Your task to perform on an android device: turn off priority inbox in the gmail app Image 0: 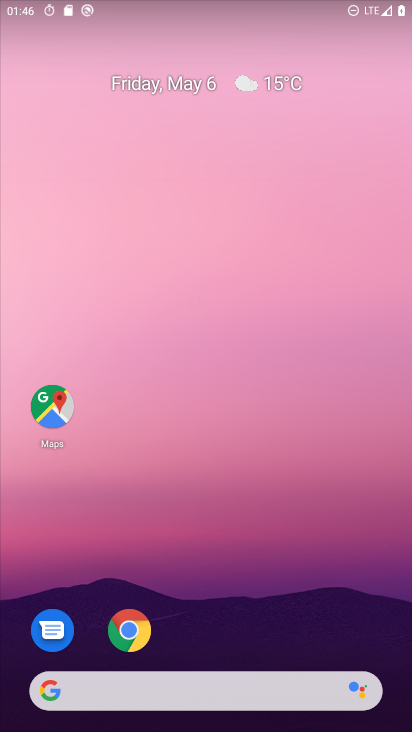
Step 0: drag from (274, 608) to (228, 20)
Your task to perform on an android device: turn off priority inbox in the gmail app Image 1: 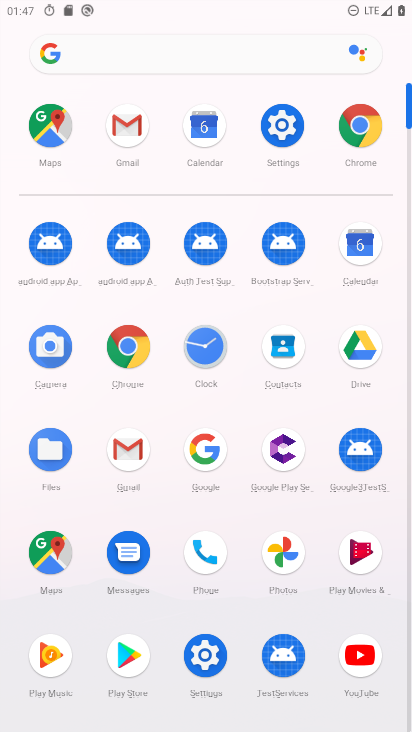
Step 1: click (133, 138)
Your task to perform on an android device: turn off priority inbox in the gmail app Image 2: 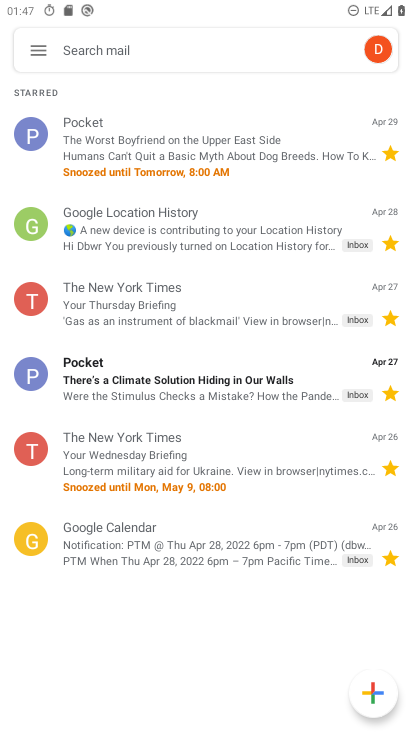
Step 2: click (44, 51)
Your task to perform on an android device: turn off priority inbox in the gmail app Image 3: 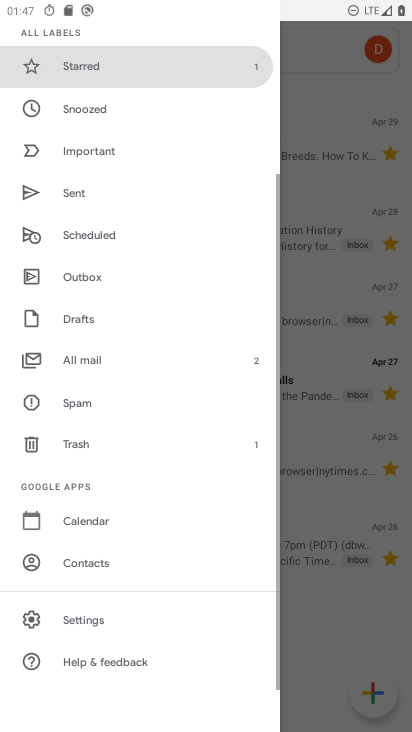
Step 3: click (153, 632)
Your task to perform on an android device: turn off priority inbox in the gmail app Image 4: 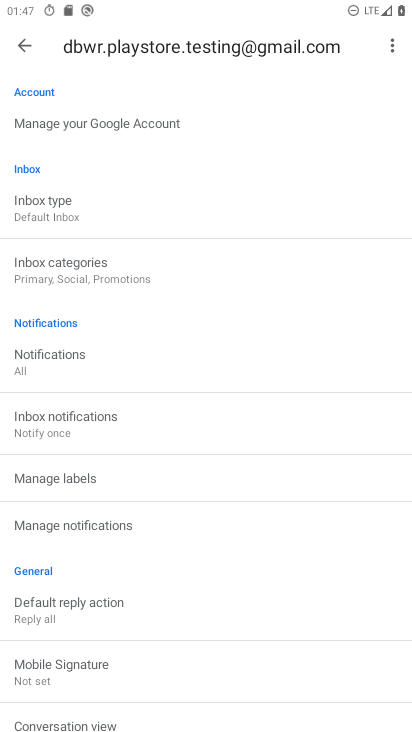
Step 4: click (66, 217)
Your task to perform on an android device: turn off priority inbox in the gmail app Image 5: 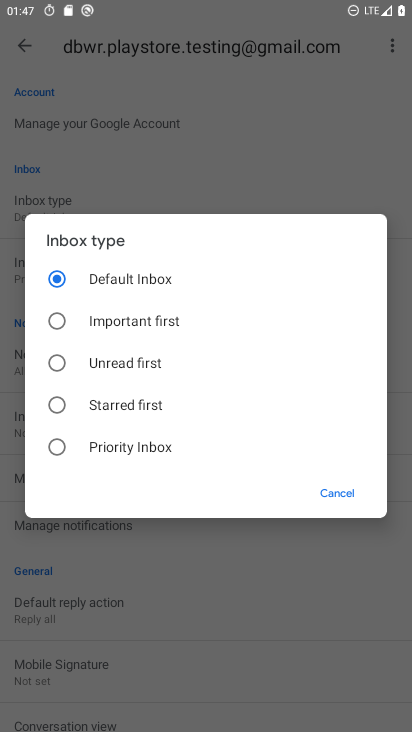
Step 5: task complete